Your task to perform on an android device: turn on the 24-hour format for clock Image 0: 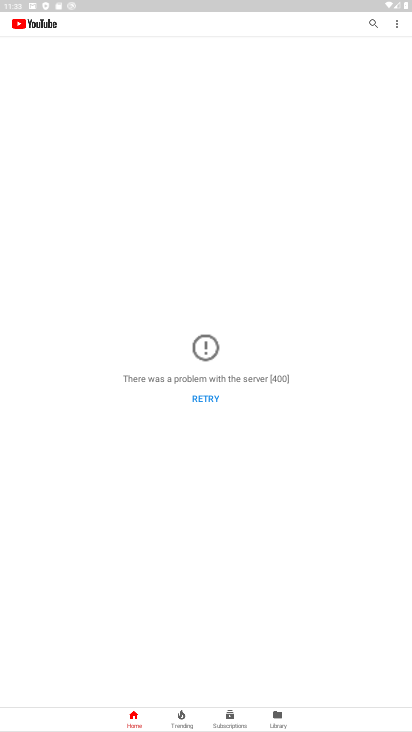
Step 0: press home button
Your task to perform on an android device: turn on the 24-hour format for clock Image 1: 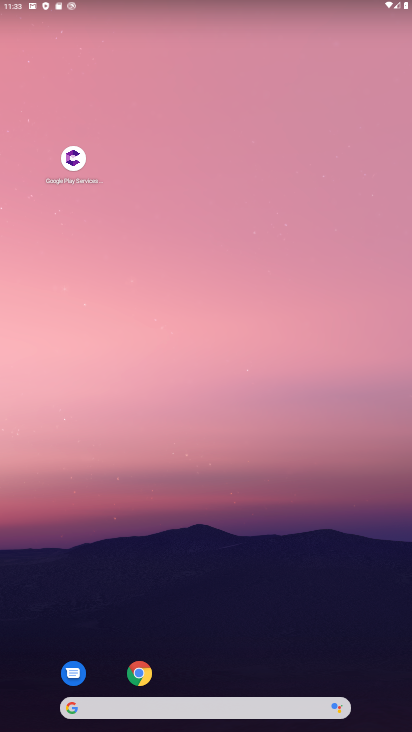
Step 1: drag from (274, 275) to (397, 0)
Your task to perform on an android device: turn on the 24-hour format for clock Image 2: 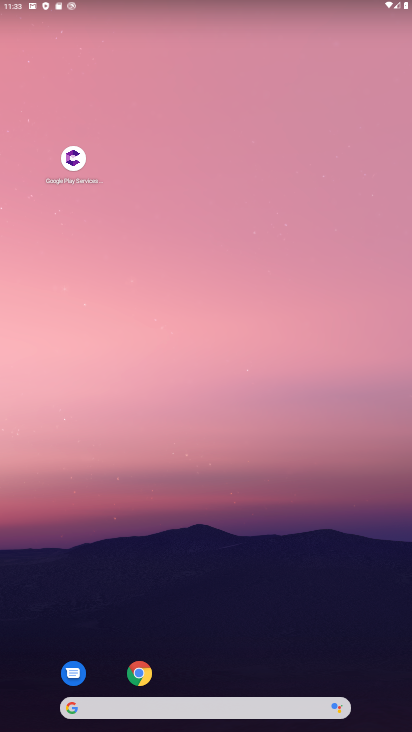
Step 2: drag from (204, 544) to (366, 10)
Your task to perform on an android device: turn on the 24-hour format for clock Image 3: 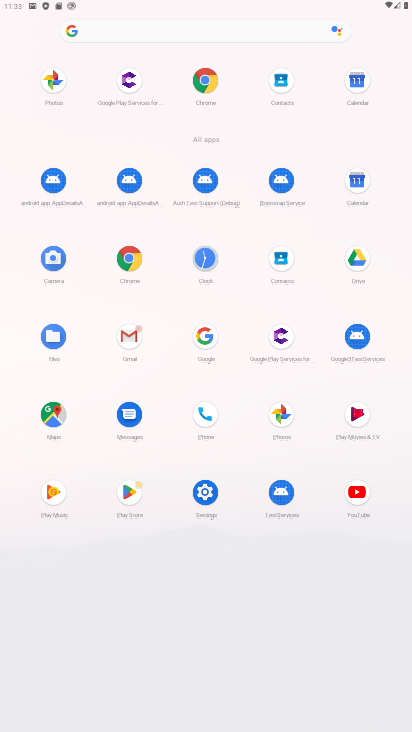
Step 3: click (201, 259)
Your task to perform on an android device: turn on the 24-hour format for clock Image 4: 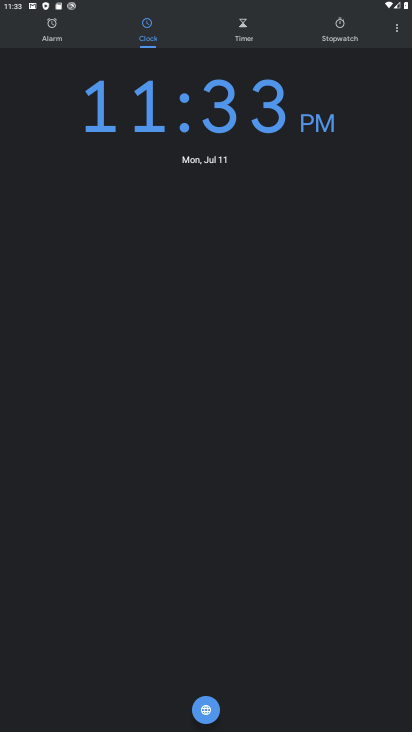
Step 4: click (394, 28)
Your task to perform on an android device: turn on the 24-hour format for clock Image 5: 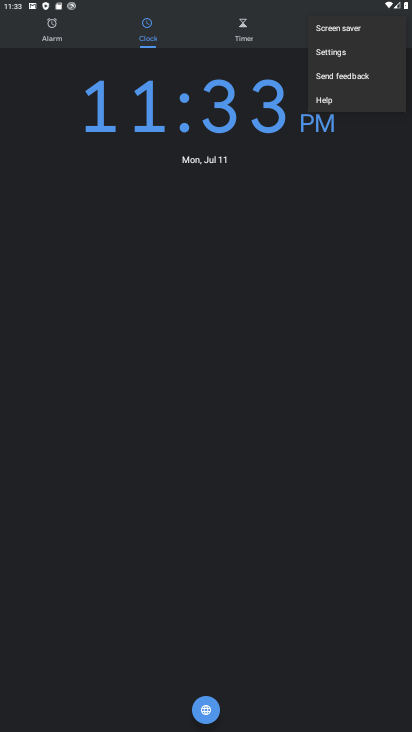
Step 5: click (338, 55)
Your task to perform on an android device: turn on the 24-hour format for clock Image 6: 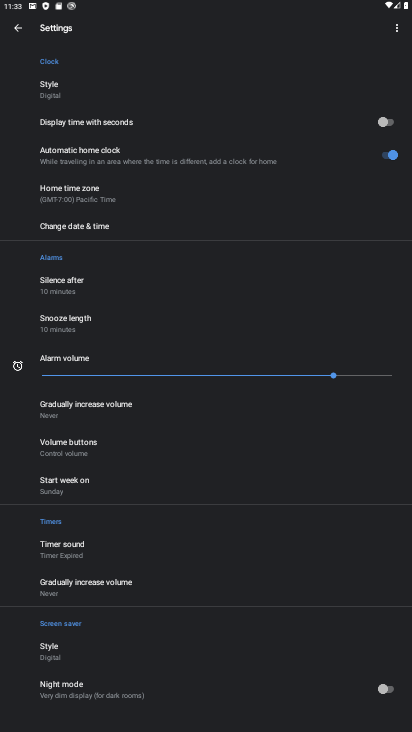
Step 6: click (63, 229)
Your task to perform on an android device: turn on the 24-hour format for clock Image 7: 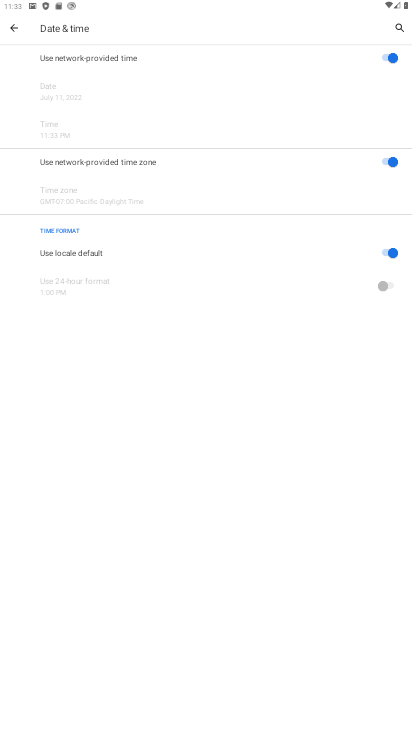
Step 7: click (393, 252)
Your task to perform on an android device: turn on the 24-hour format for clock Image 8: 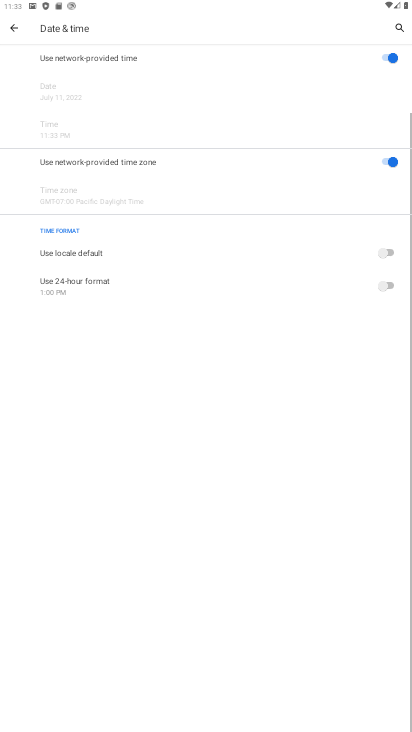
Step 8: click (383, 285)
Your task to perform on an android device: turn on the 24-hour format for clock Image 9: 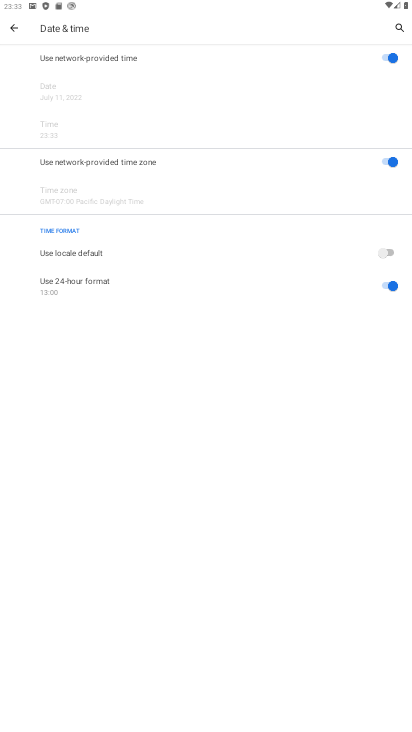
Step 9: task complete